Your task to perform on an android device: turn off wifi Image 0: 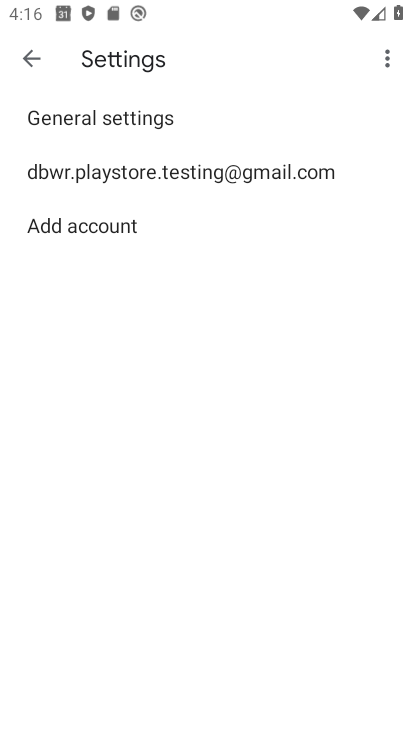
Step 0: press home button
Your task to perform on an android device: turn off wifi Image 1: 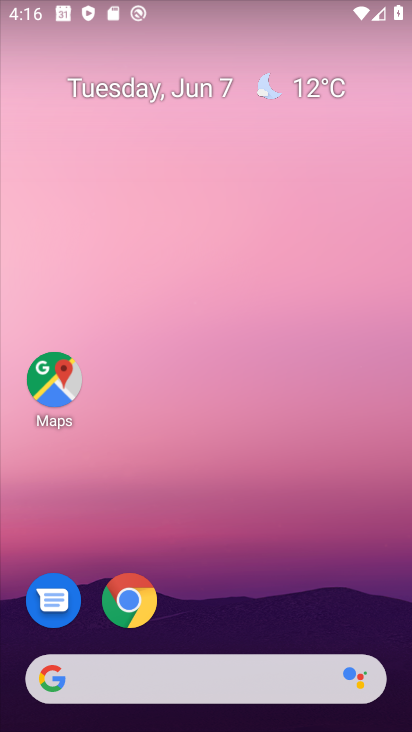
Step 1: drag from (248, 618) to (244, 231)
Your task to perform on an android device: turn off wifi Image 2: 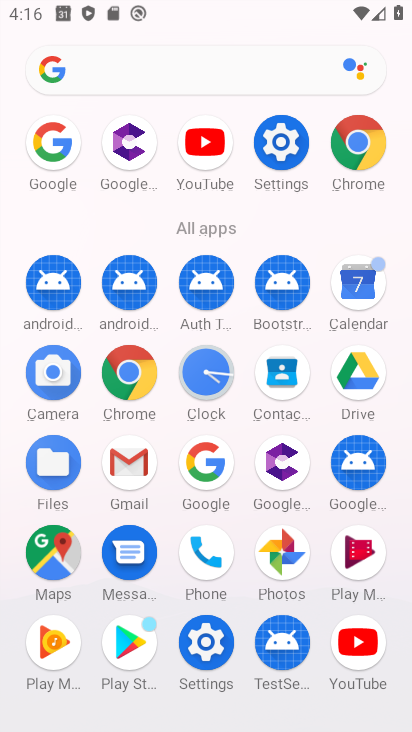
Step 2: click (279, 157)
Your task to perform on an android device: turn off wifi Image 3: 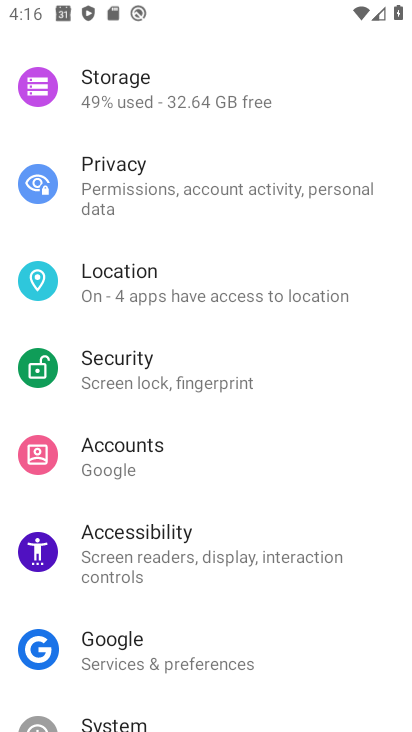
Step 3: drag from (241, 79) to (193, 559)
Your task to perform on an android device: turn off wifi Image 4: 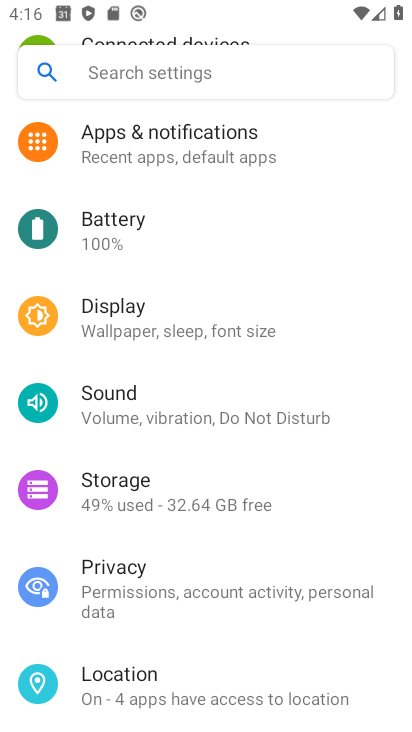
Step 4: click (249, 509)
Your task to perform on an android device: turn off wifi Image 5: 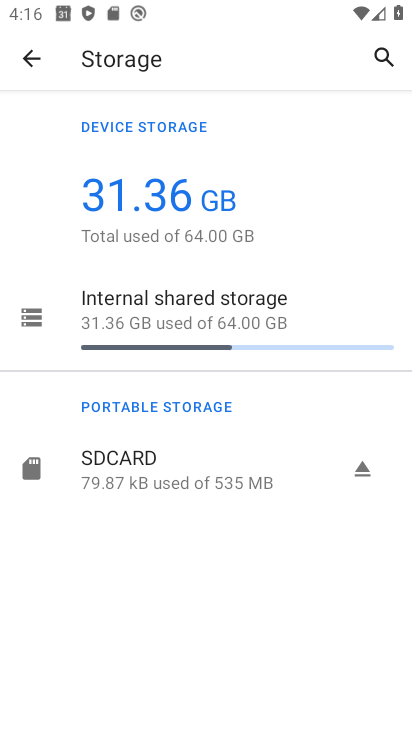
Step 5: drag from (197, 123) to (201, 473)
Your task to perform on an android device: turn off wifi Image 6: 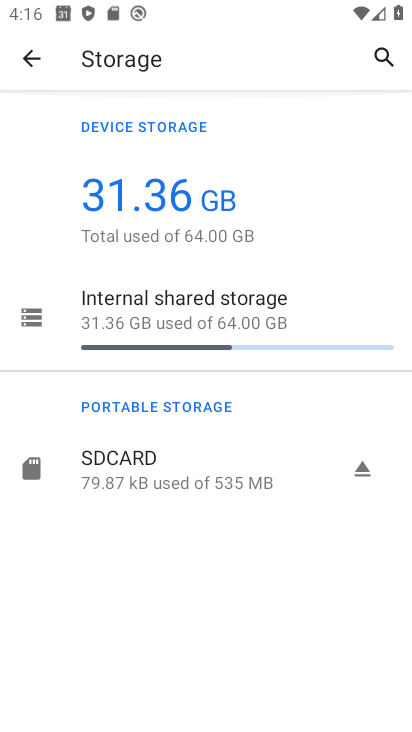
Step 6: click (37, 46)
Your task to perform on an android device: turn off wifi Image 7: 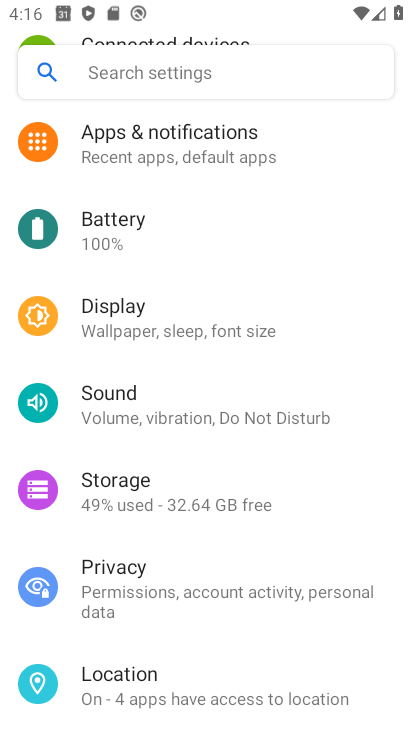
Step 7: drag from (192, 129) to (179, 563)
Your task to perform on an android device: turn off wifi Image 8: 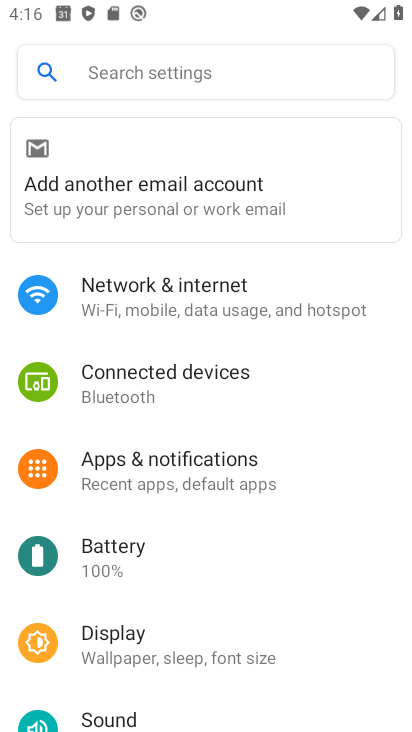
Step 8: click (182, 301)
Your task to perform on an android device: turn off wifi Image 9: 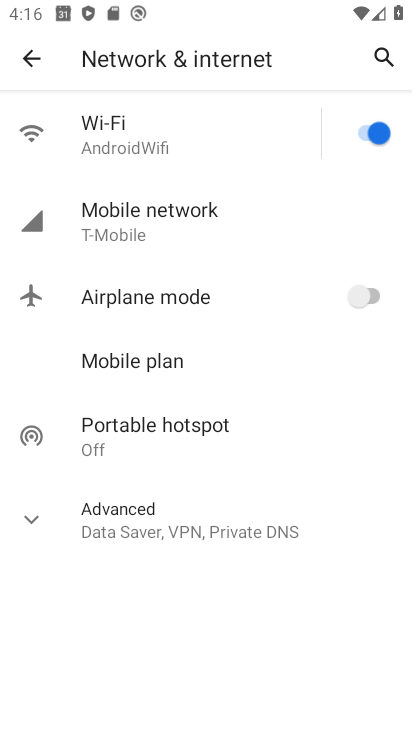
Step 9: click (372, 126)
Your task to perform on an android device: turn off wifi Image 10: 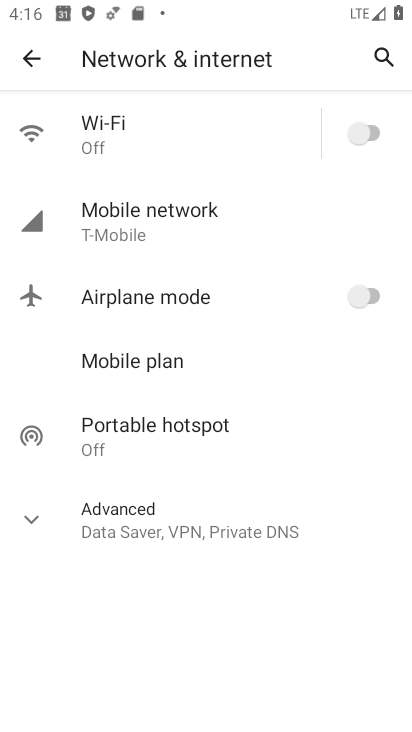
Step 10: task complete